Your task to perform on an android device: What's the weather? Image 0: 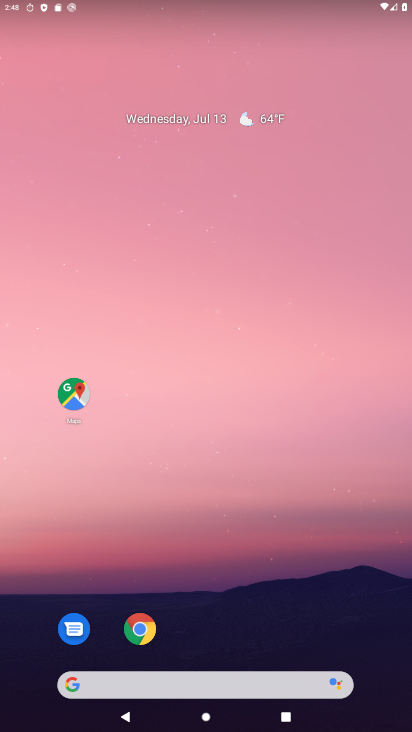
Step 0: drag from (142, 670) to (206, 2)
Your task to perform on an android device: What's the weather? Image 1: 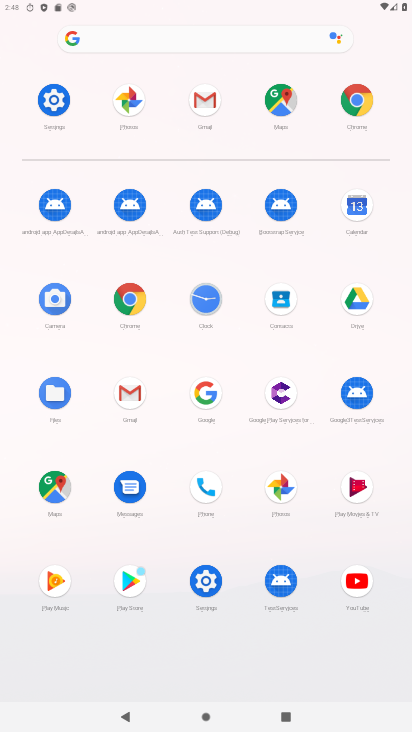
Step 1: click (139, 286)
Your task to perform on an android device: What's the weather? Image 2: 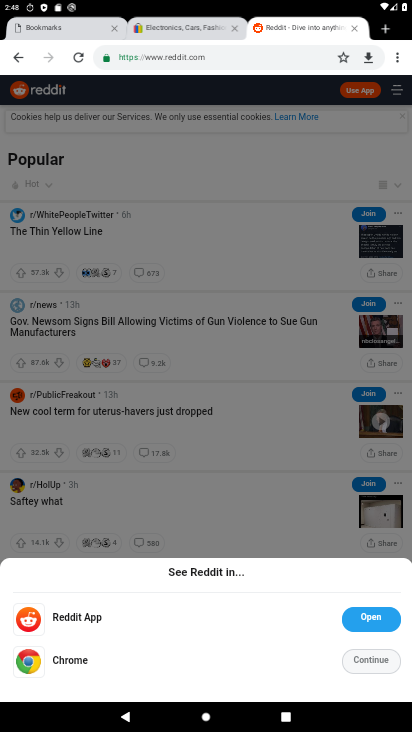
Step 2: click (215, 60)
Your task to perform on an android device: What's the weather? Image 3: 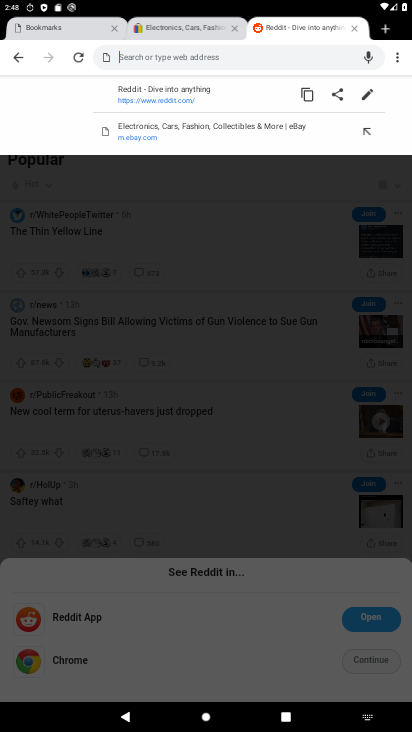
Step 3: type "whats the weather?"
Your task to perform on an android device: What's the weather? Image 4: 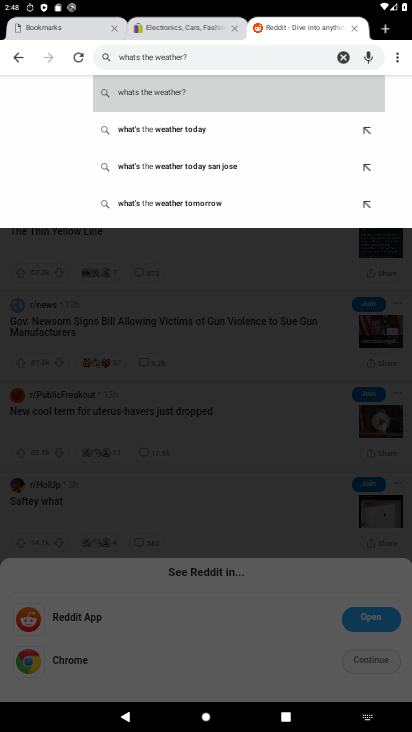
Step 4: click (176, 86)
Your task to perform on an android device: What's the weather? Image 5: 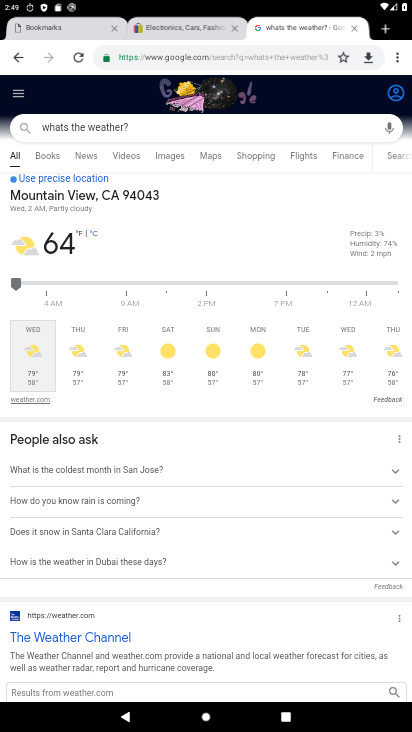
Step 5: task complete